Your task to perform on an android device: Open Google Image 0: 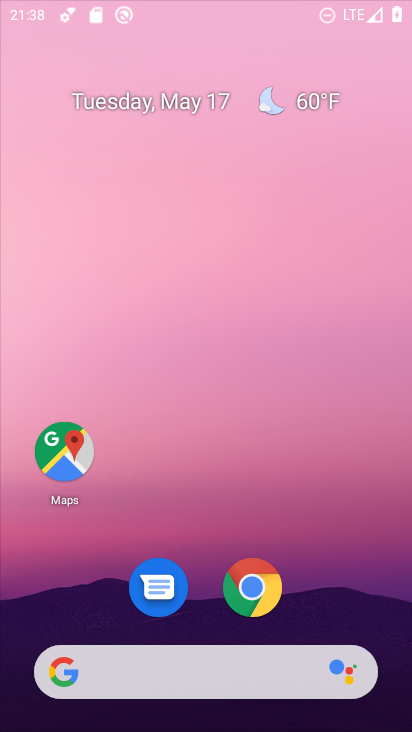
Step 0: drag from (242, 509) to (219, 262)
Your task to perform on an android device: Open Google Image 1: 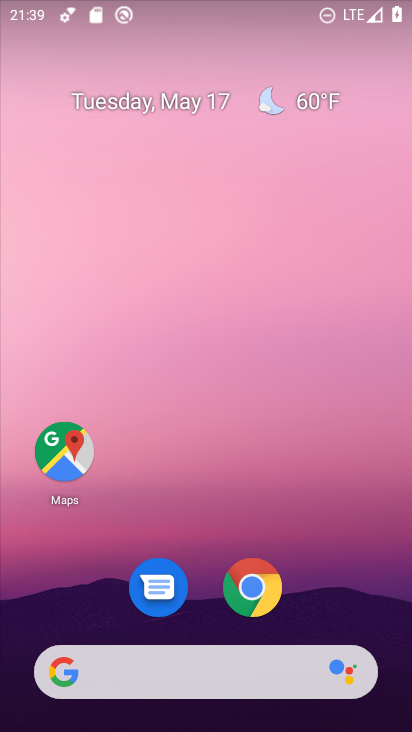
Step 1: drag from (230, 501) to (246, 130)
Your task to perform on an android device: Open Google Image 2: 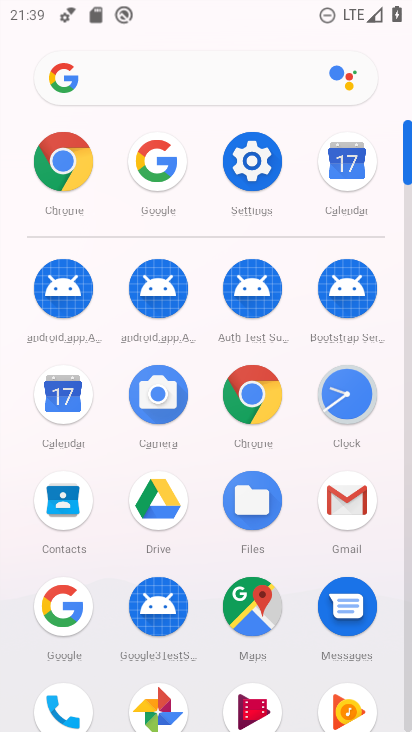
Step 2: click (88, 607)
Your task to perform on an android device: Open Google Image 3: 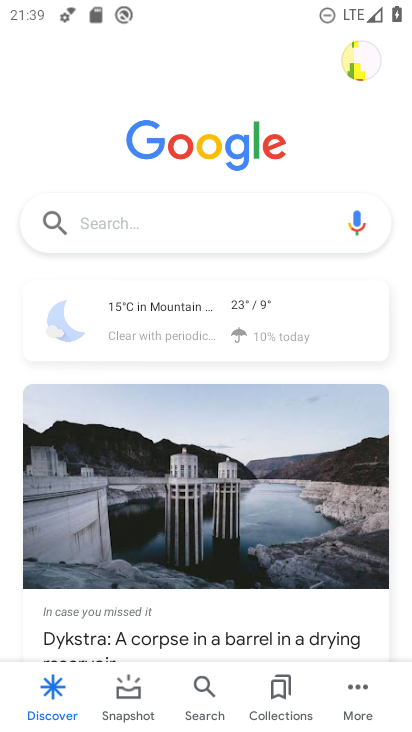
Step 3: task complete